Your task to perform on an android device: open a bookmark in the chrome app Image 0: 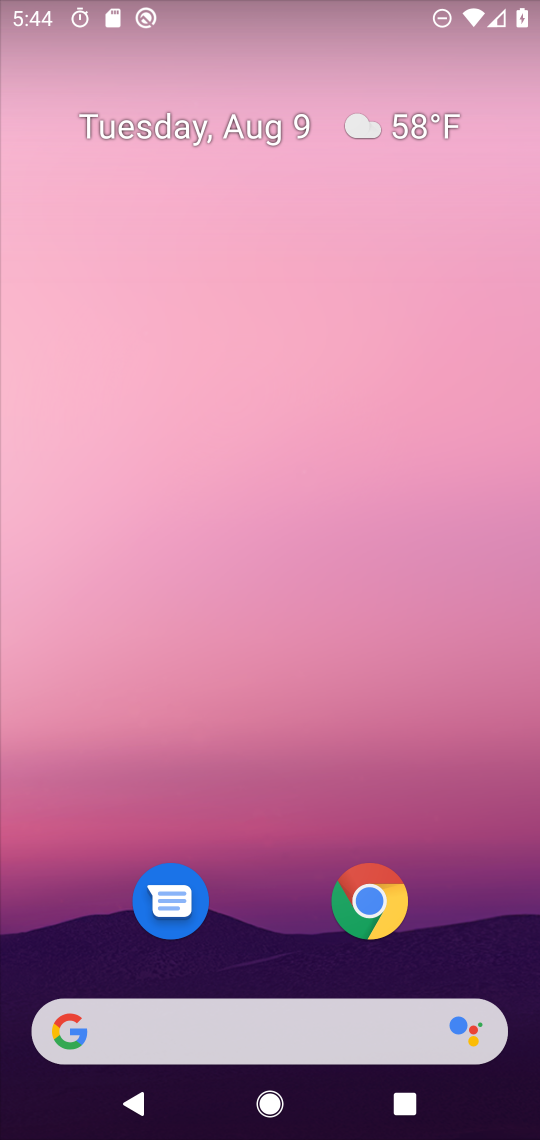
Step 0: drag from (258, 955) to (411, 19)
Your task to perform on an android device: open a bookmark in the chrome app Image 1: 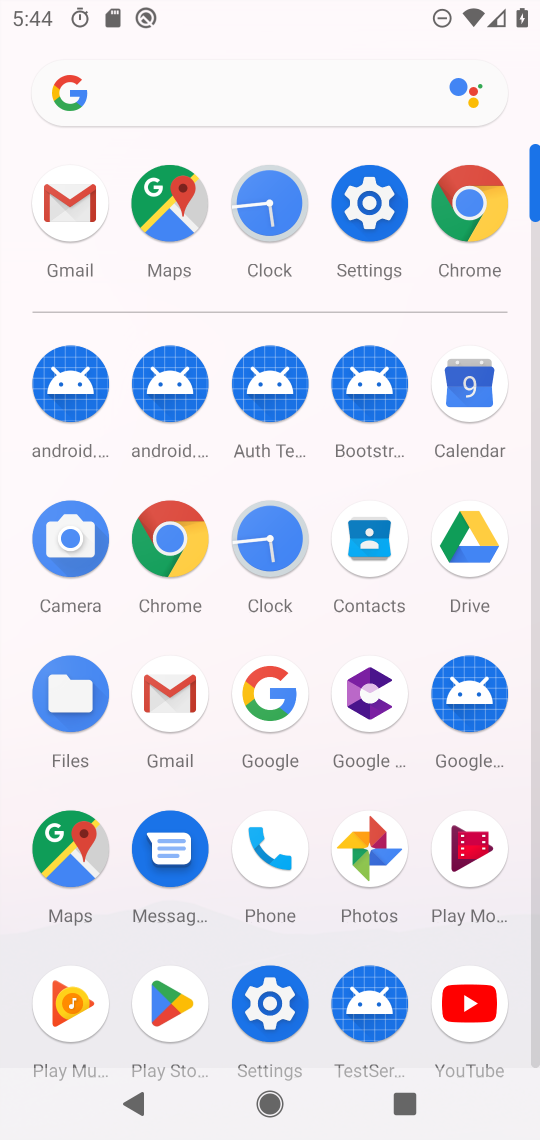
Step 1: click (167, 550)
Your task to perform on an android device: open a bookmark in the chrome app Image 2: 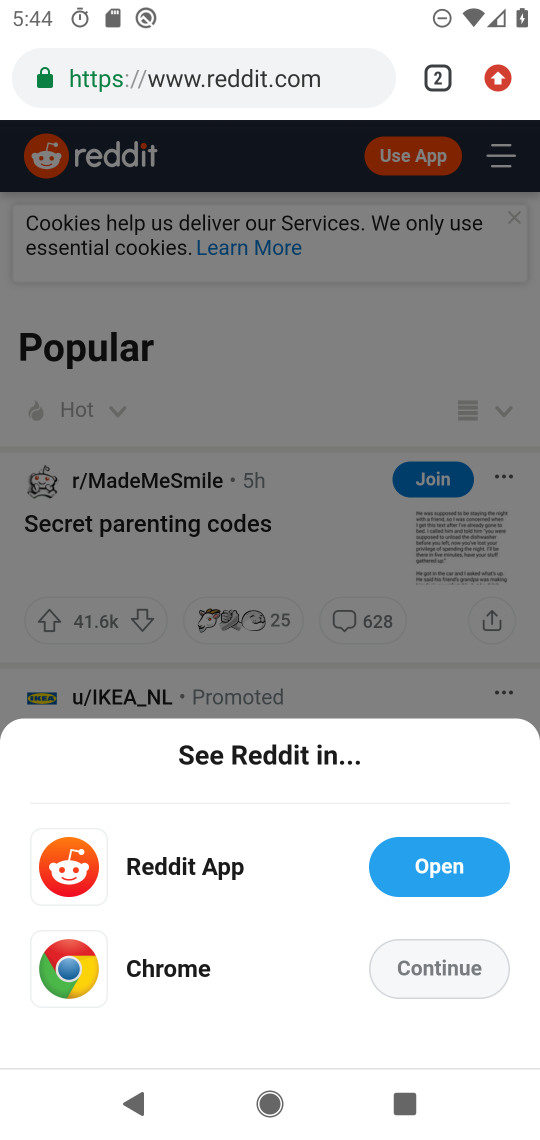
Step 2: task complete